Your task to perform on an android device: turn off picture-in-picture Image 0: 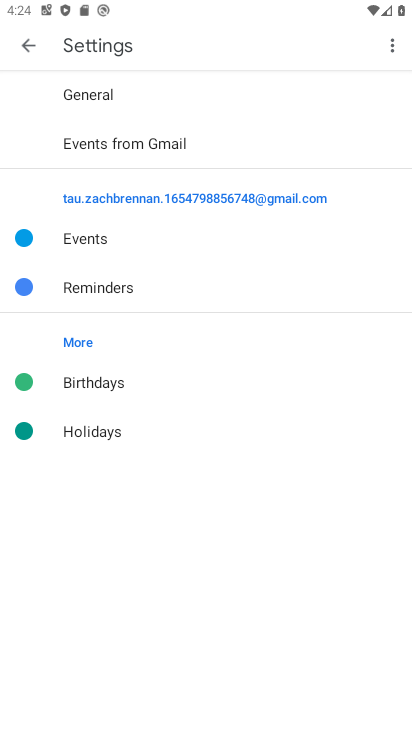
Step 0: press home button
Your task to perform on an android device: turn off picture-in-picture Image 1: 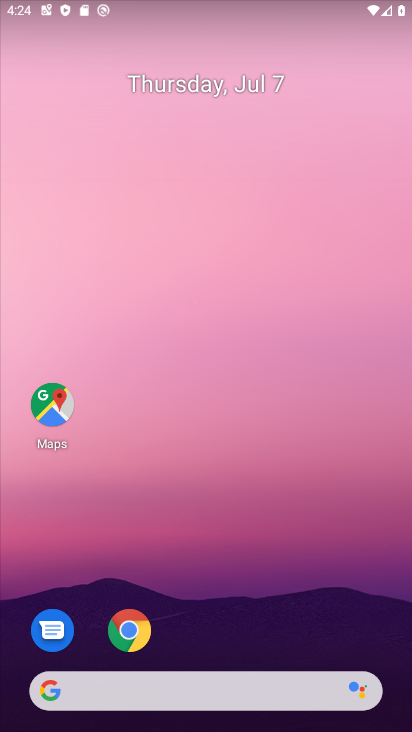
Step 1: click (136, 635)
Your task to perform on an android device: turn off picture-in-picture Image 2: 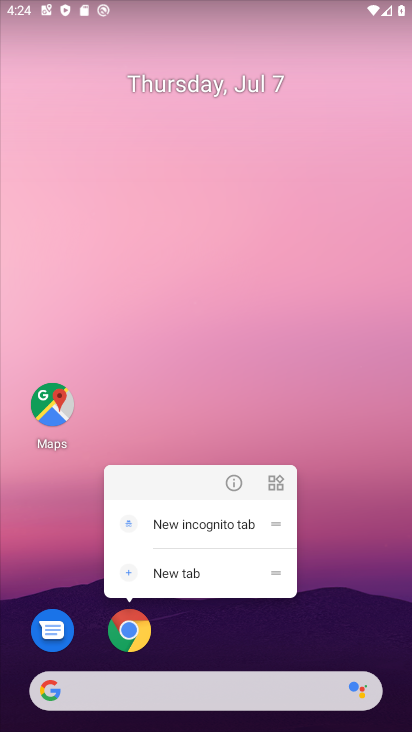
Step 2: click (240, 481)
Your task to perform on an android device: turn off picture-in-picture Image 3: 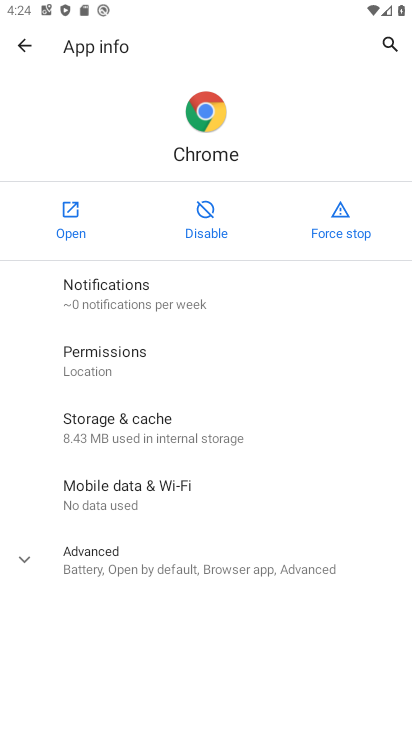
Step 3: click (145, 557)
Your task to perform on an android device: turn off picture-in-picture Image 4: 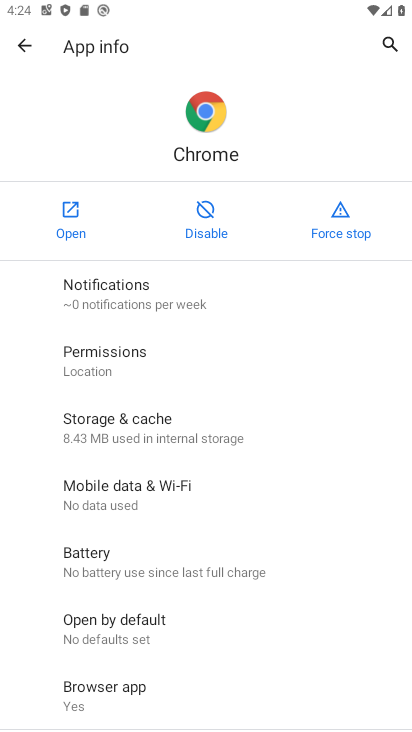
Step 4: drag from (117, 692) to (114, 305)
Your task to perform on an android device: turn off picture-in-picture Image 5: 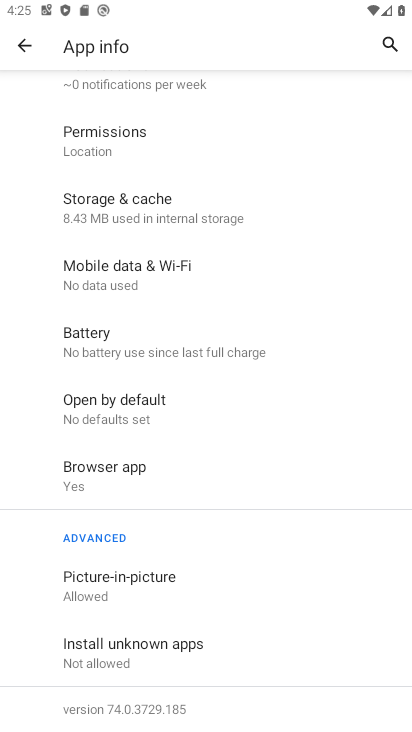
Step 5: click (134, 566)
Your task to perform on an android device: turn off picture-in-picture Image 6: 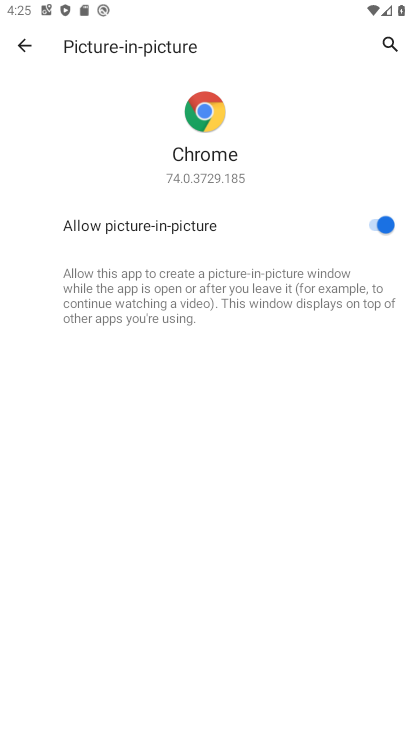
Step 6: click (374, 229)
Your task to perform on an android device: turn off picture-in-picture Image 7: 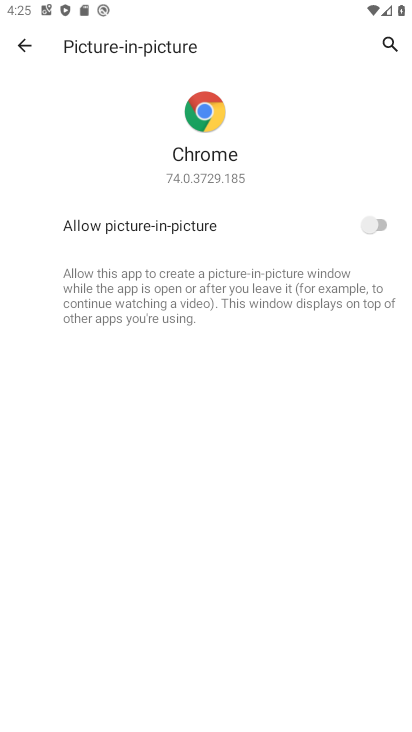
Step 7: task complete